Your task to perform on an android device: Go to Maps Image 0: 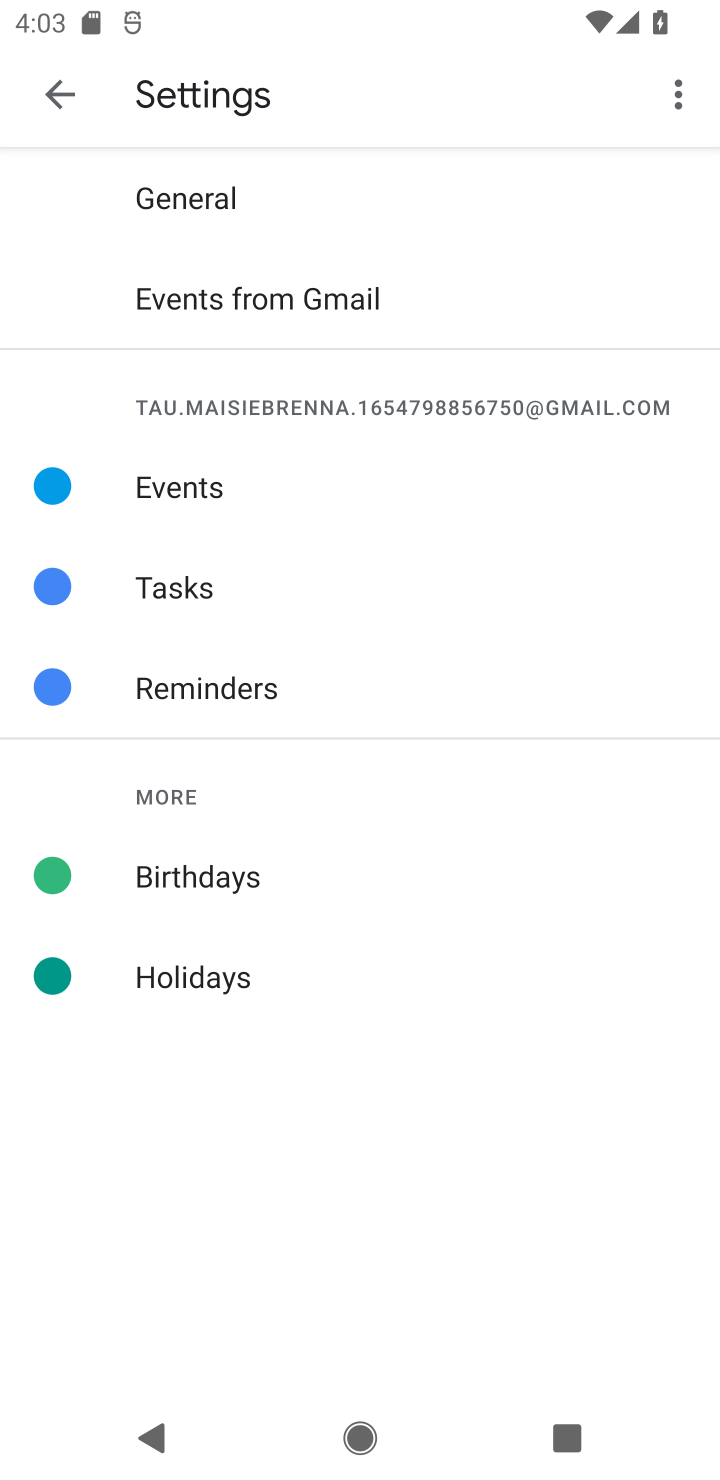
Step 0: press back button
Your task to perform on an android device: Go to Maps Image 1: 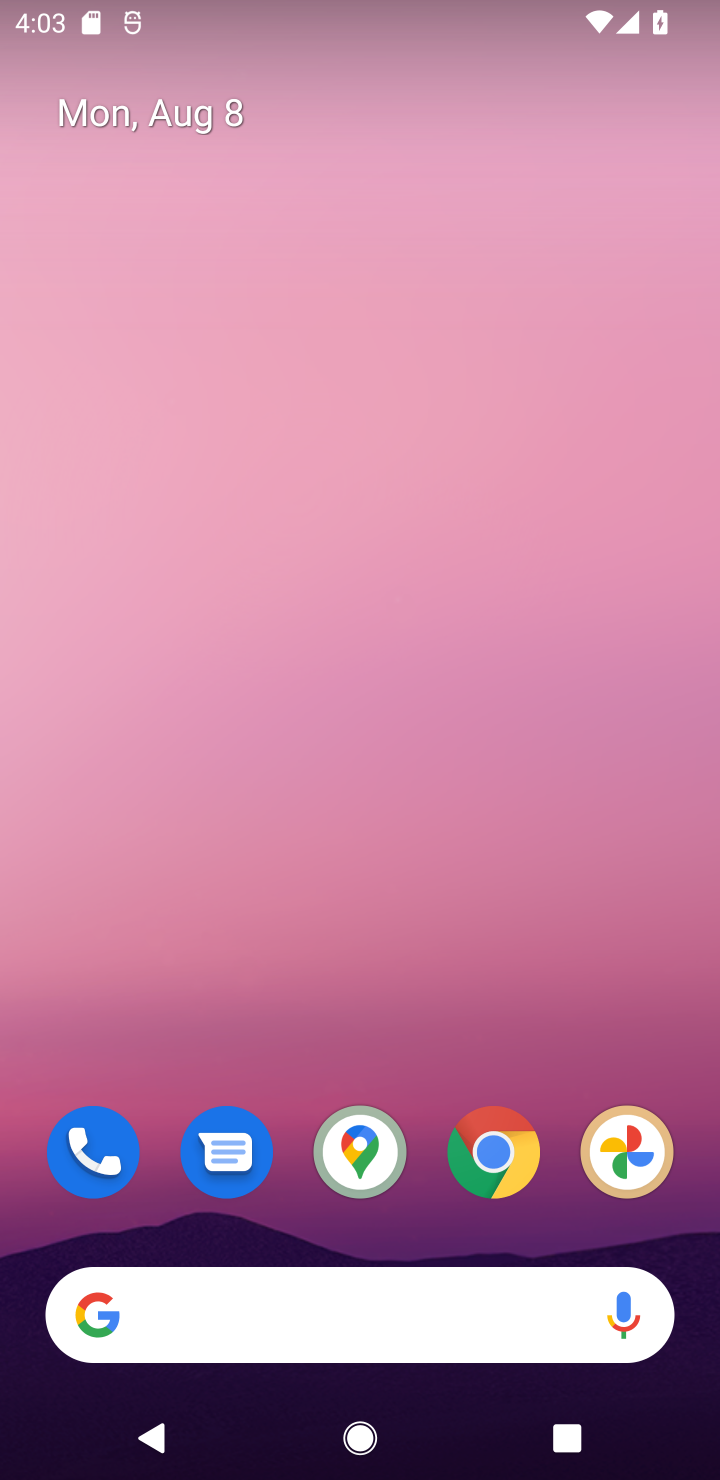
Step 1: click (383, 1151)
Your task to perform on an android device: Go to Maps Image 2: 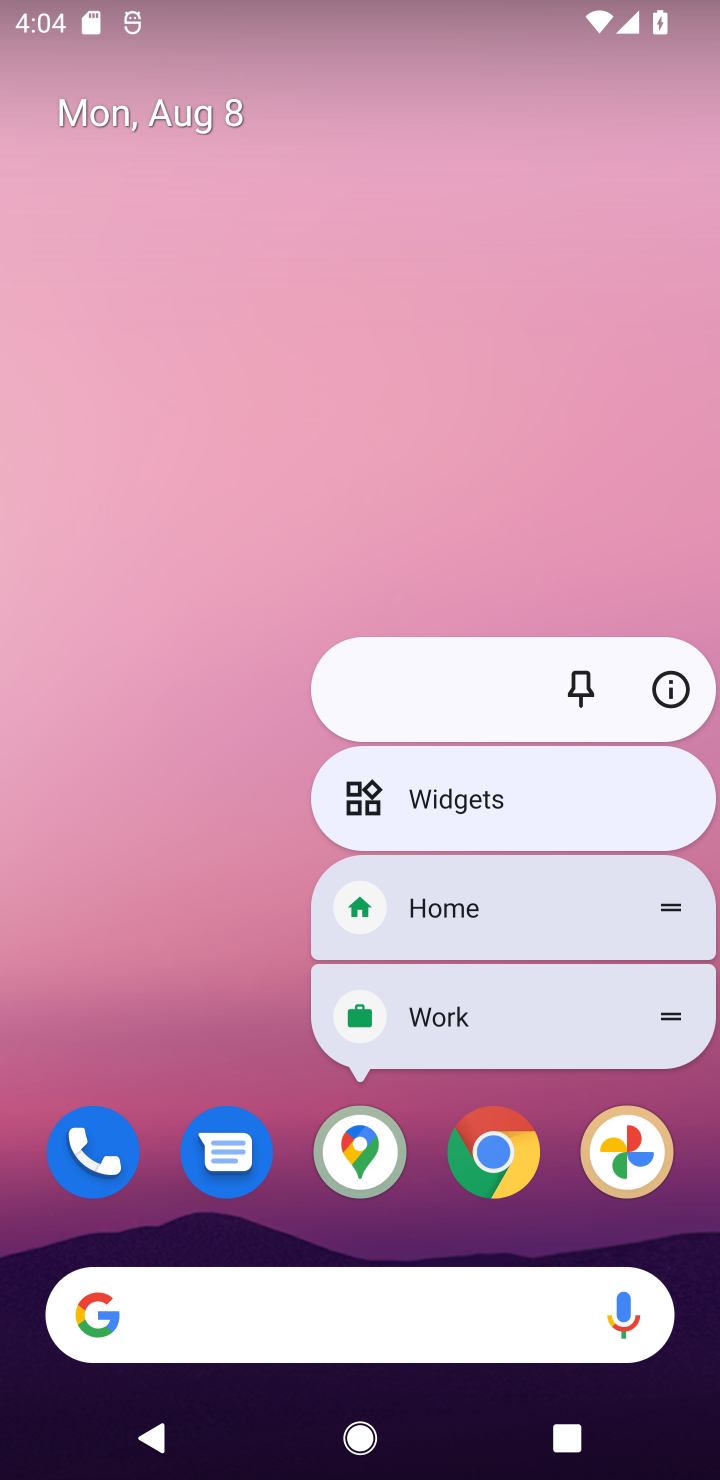
Step 2: click (351, 1153)
Your task to perform on an android device: Go to Maps Image 3: 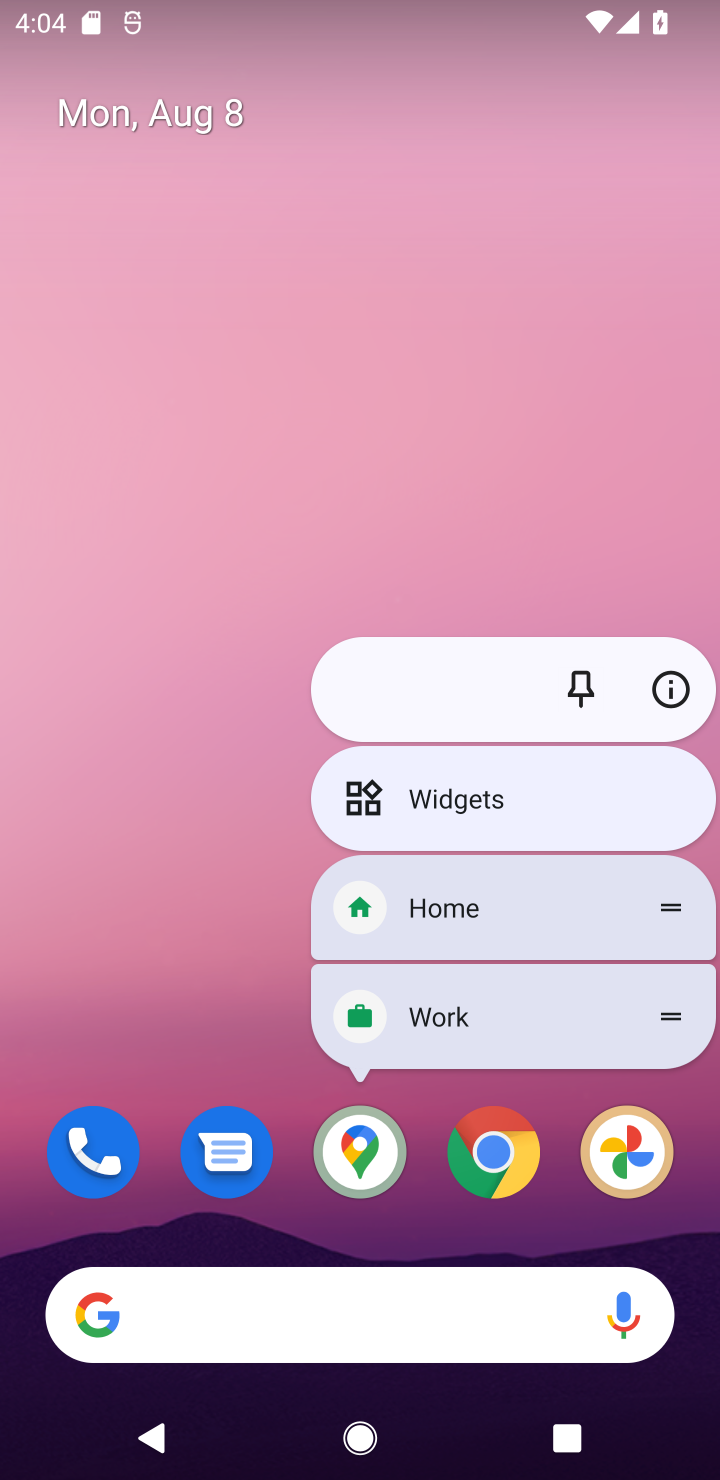
Step 3: click (351, 1153)
Your task to perform on an android device: Go to Maps Image 4: 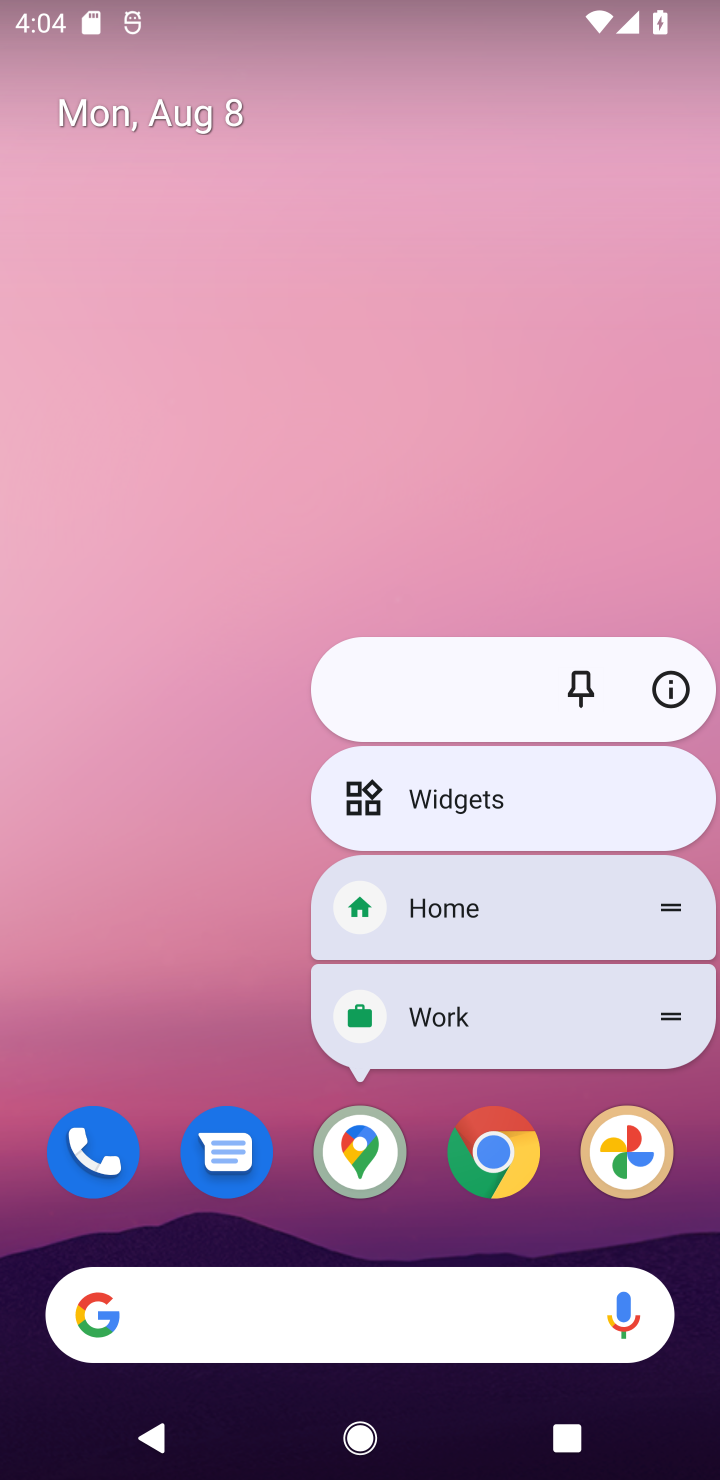
Step 4: click (371, 1148)
Your task to perform on an android device: Go to Maps Image 5: 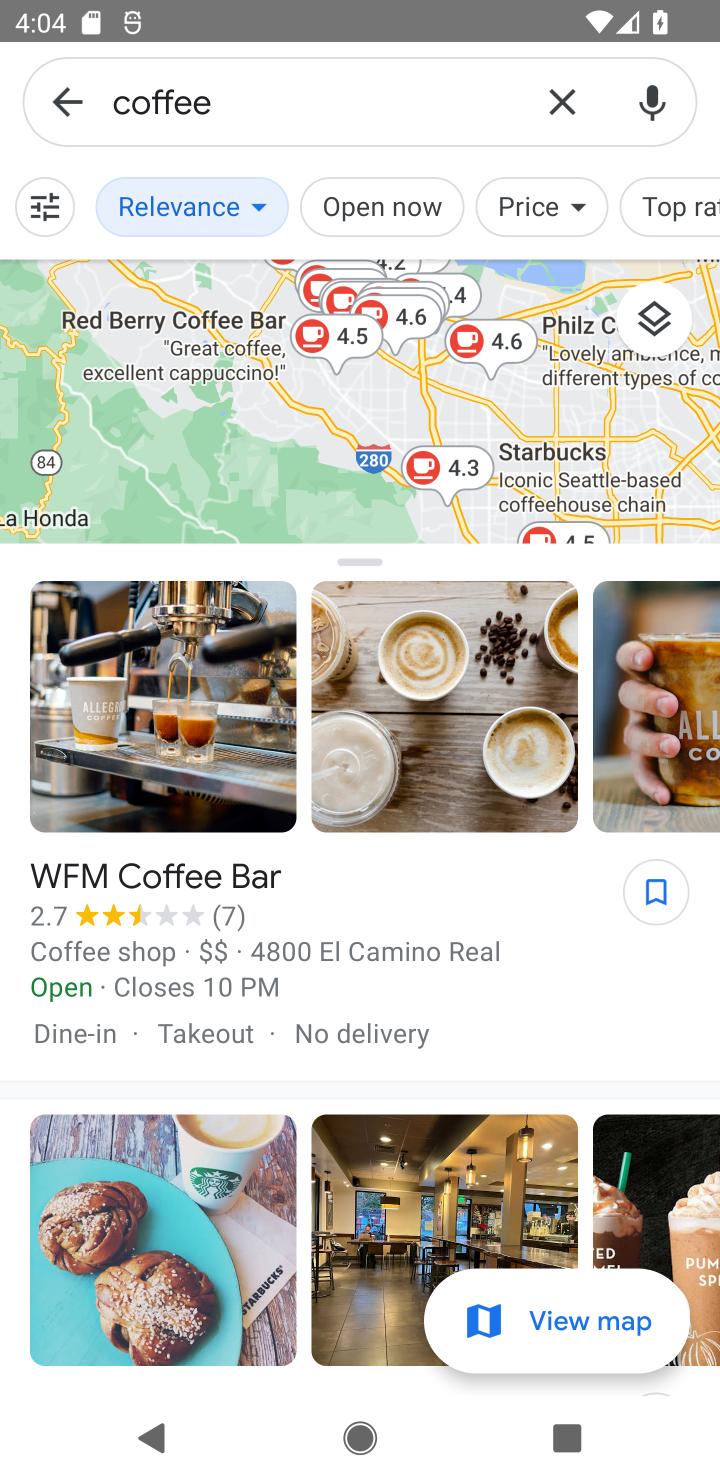
Step 5: task complete